Your task to perform on an android device: turn off sleep mode Image 0: 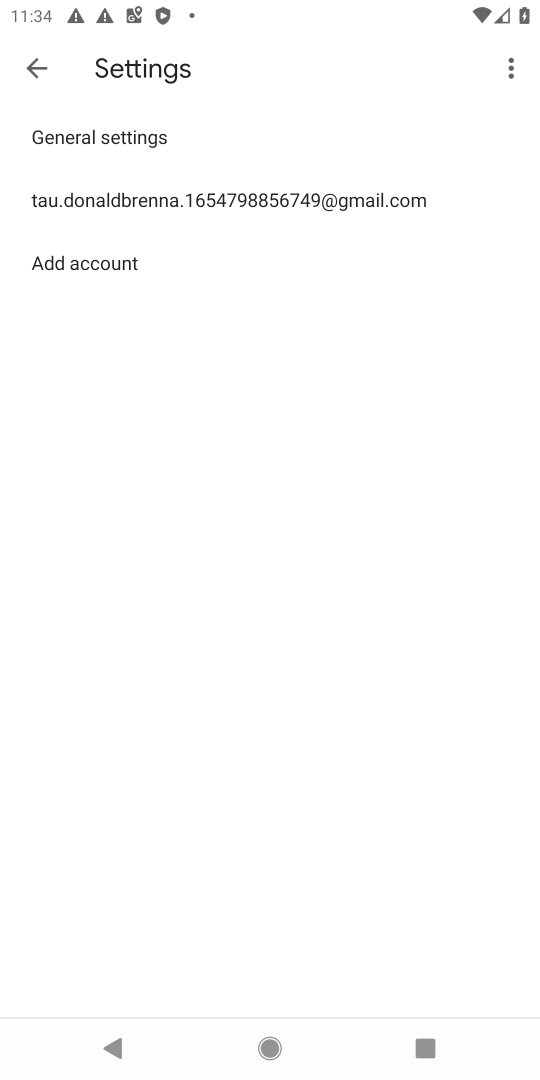
Step 0: press home button
Your task to perform on an android device: turn off sleep mode Image 1: 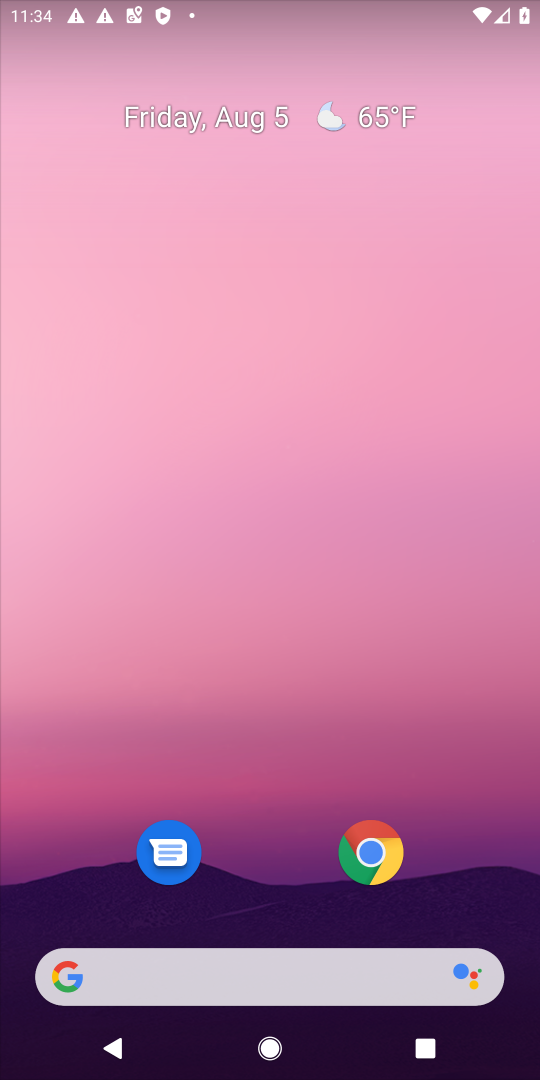
Step 1: drag from (353, 995) to (333, 357)
Your task to perform on an android device: turn off sleep mode Image 2: 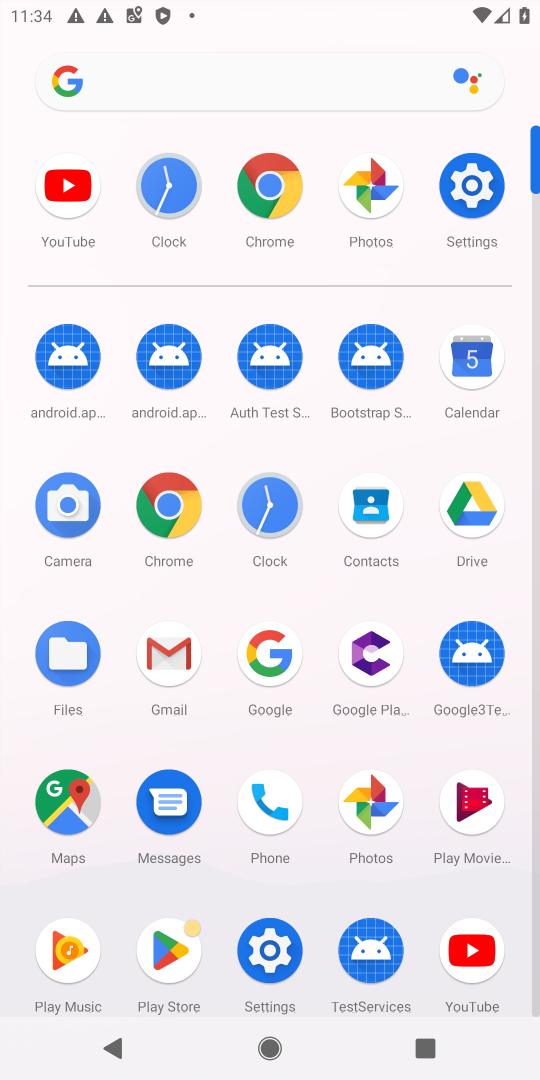
Step 2: click (477, 173)
Your task to perform on an android device: turn off sleep mode Image 3: 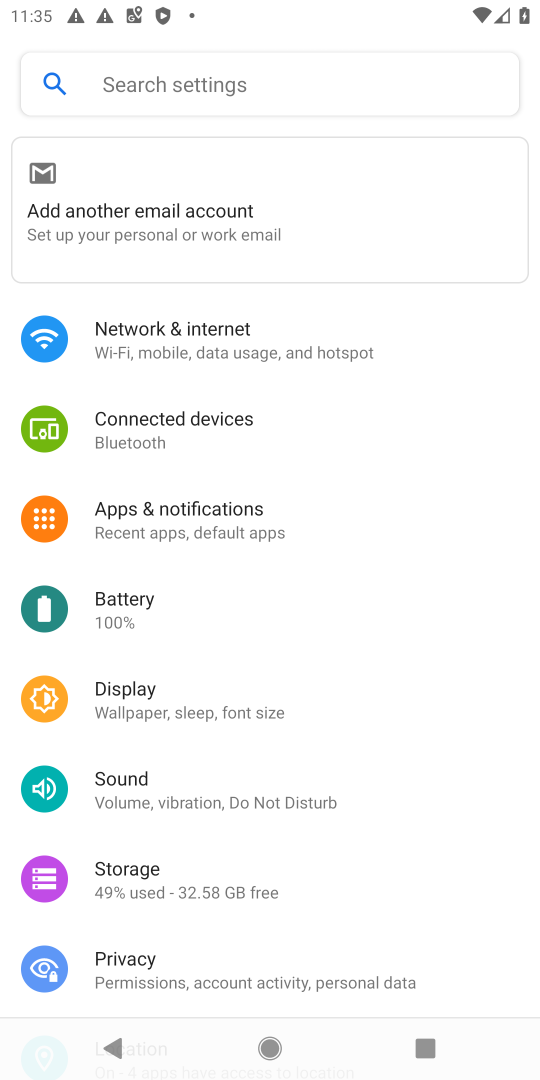
Step 3: click (197, 88)
Your task to perform on an android device: turn off sleep mode Image 4: 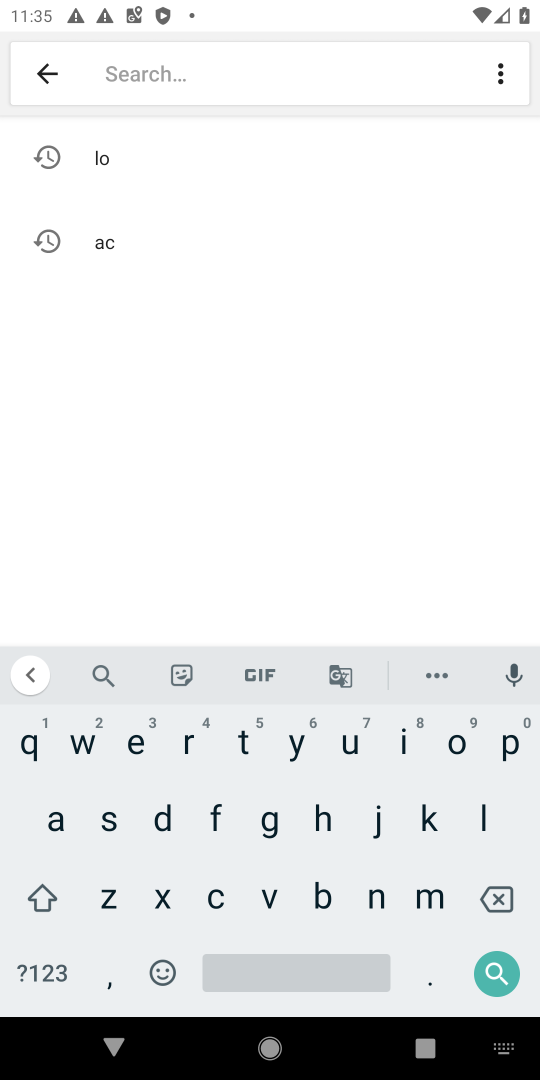
Step 4: click (100, 820)
Your task to perform on an android device: turn off sleep mode Image 5: 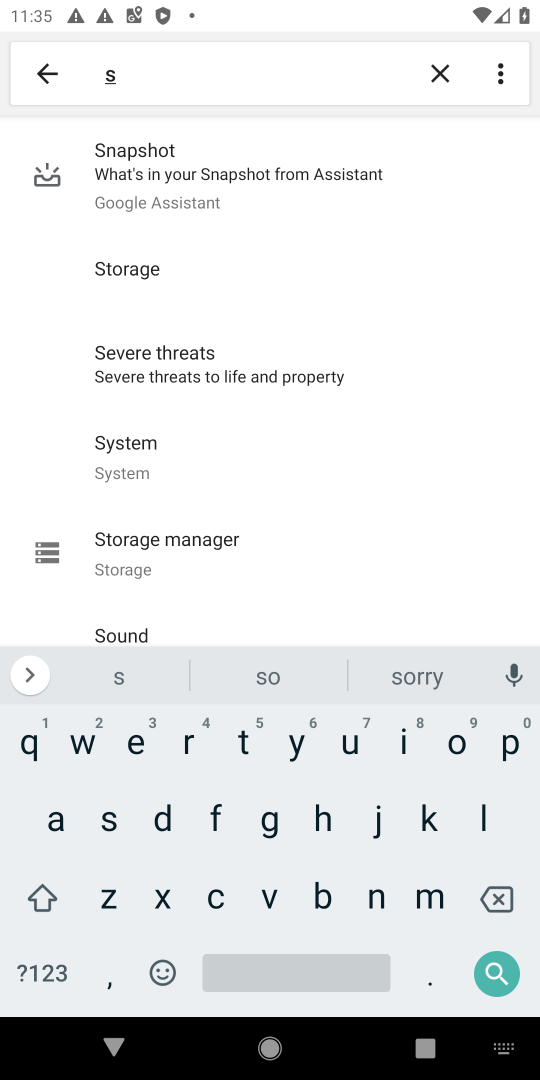
Step 5: click (488, 815)
Your task to perform on an android device: turn off sleep mode Image 6: 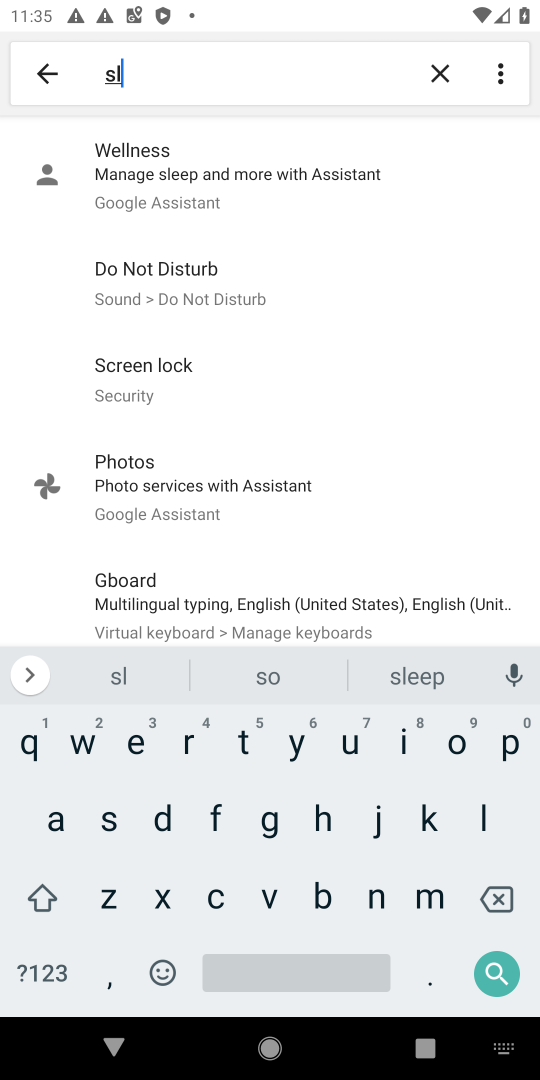
Step 6: click (171, 284)
Your task to perform on an android device: turn off sleep mode Image 7: 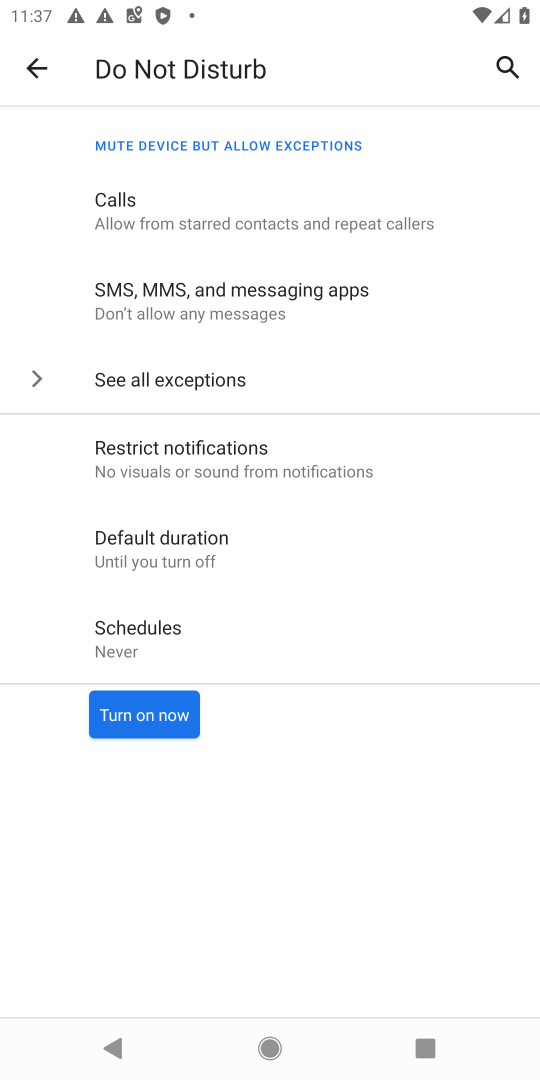
Step 7: task complete